Your task to perform on an android device: Go to accessibility settings Image 0: 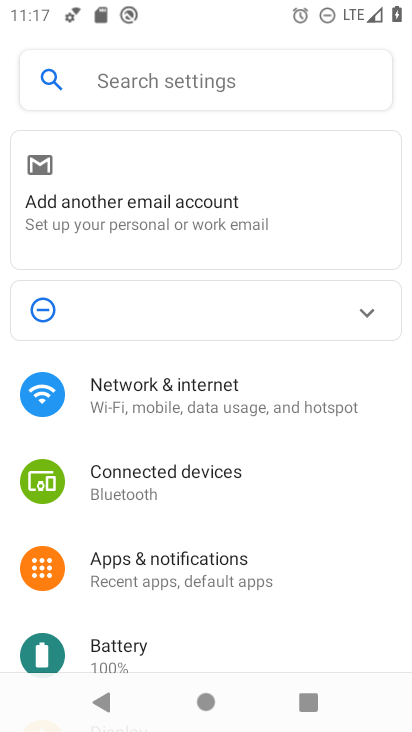
Step 0: drag from (267, 614) to (295, 49)
Your task to perform on an android device: Go to accessibility settings Image 1: 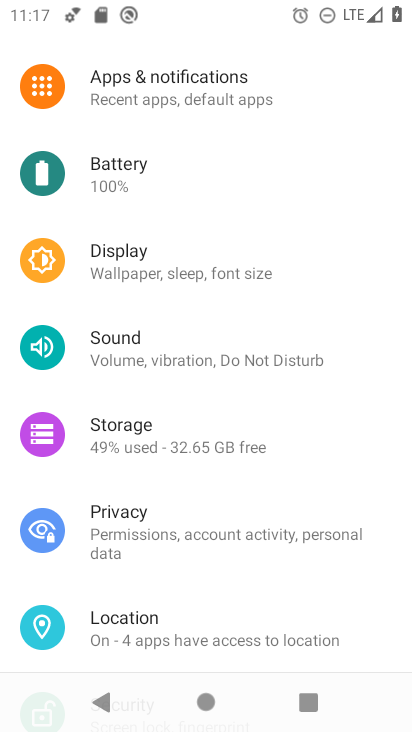
Step 1: drag from (286, 574) to (245, 98)
Your task to perform on an android device: Go to accessibility settings Image 2: 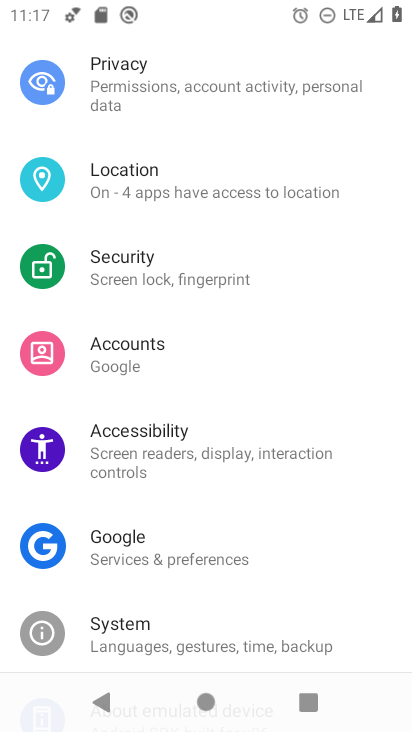
Step 2: click (244, 450)
Your task to perform on an android device: Go to accessibility settings Image 3: 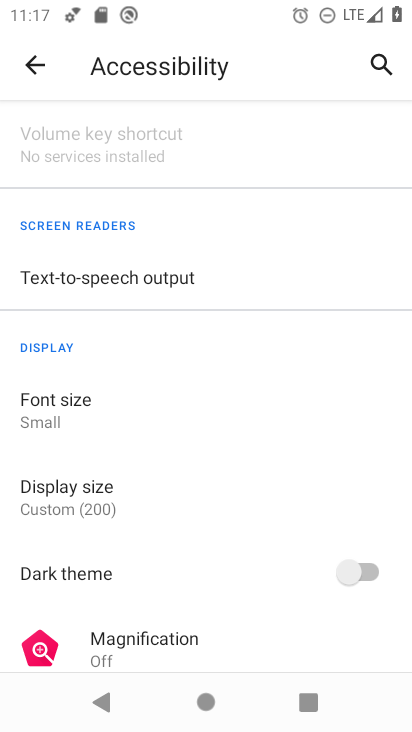
Step 3: task complete